Your task to perform on an android device: toggle javascript in the chrome app Image 0: 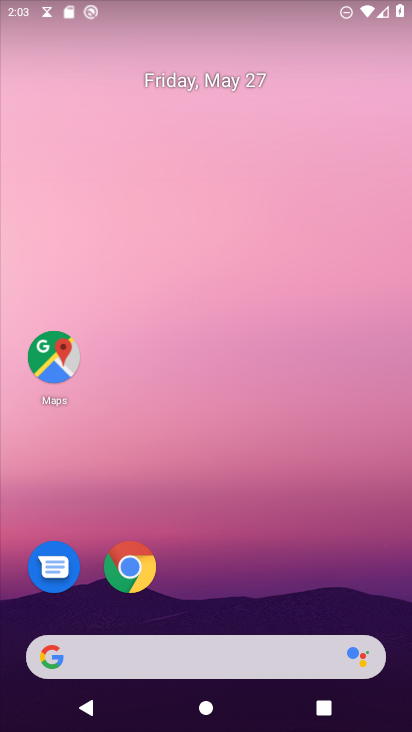
Step 0: drag from (227, 613) to (201, 264)
Your task to perform on an android device: toggle javascript in the chrome app Image 1: 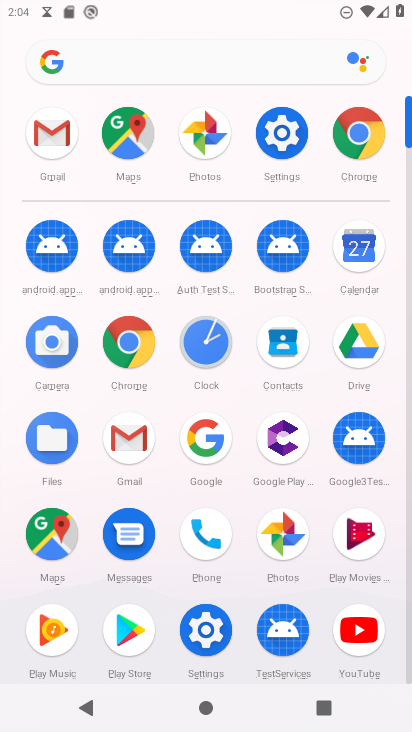
Step 1: click (372, 125)
Your task to perform on an android device: toggle javascript in the chrome app Image 2: 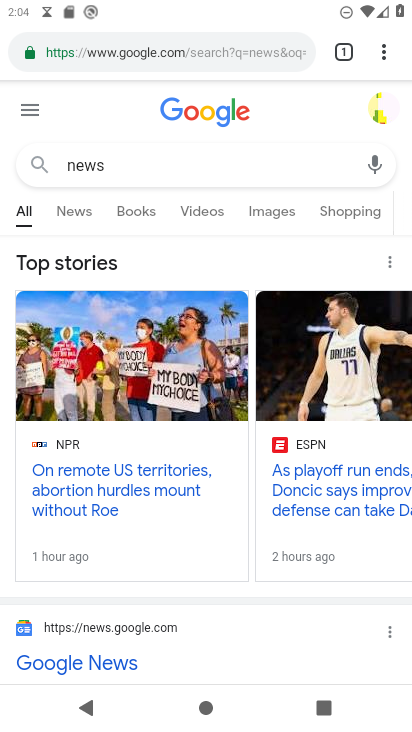
Step 2: click (377, 57)
Your task to perform on an android device: toggle javascript in the chrome app Image 3: 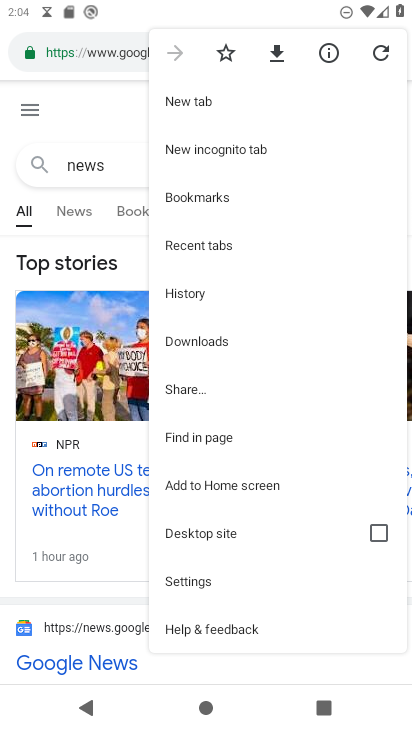
Step 3: click (182, 582)
Your task to perform on an android device: toggle javascript in the chrome app Image 4: 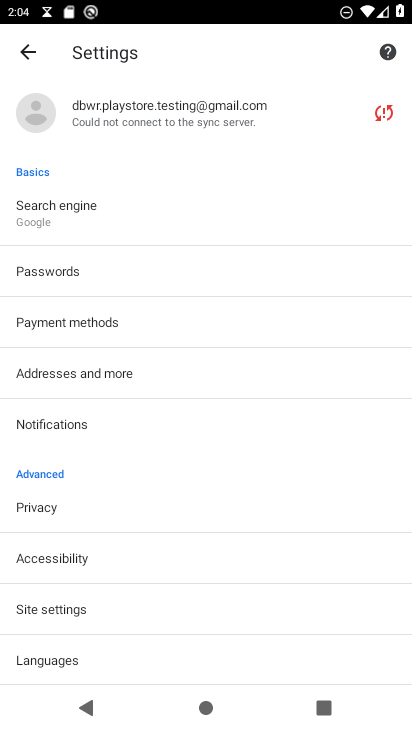
Step 4: drag from (146, 660) to (128, 443)
Your task to perform on an android device: toggle javascript in the chrome app Image 5: 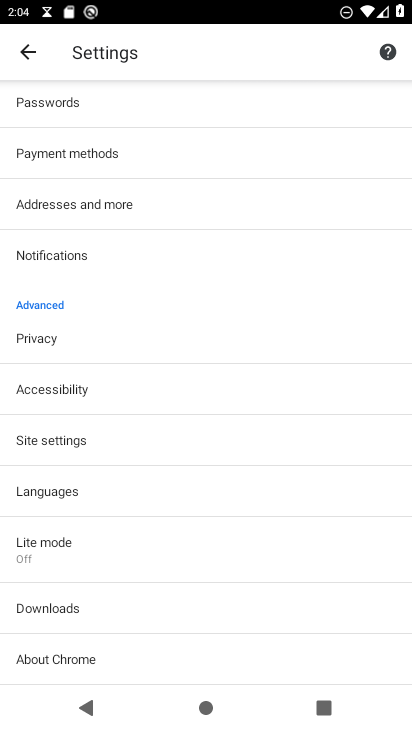
Step 5: click (121, 439)
Your task to perform on an android device: toggle javascript in the chrome app Image 6: 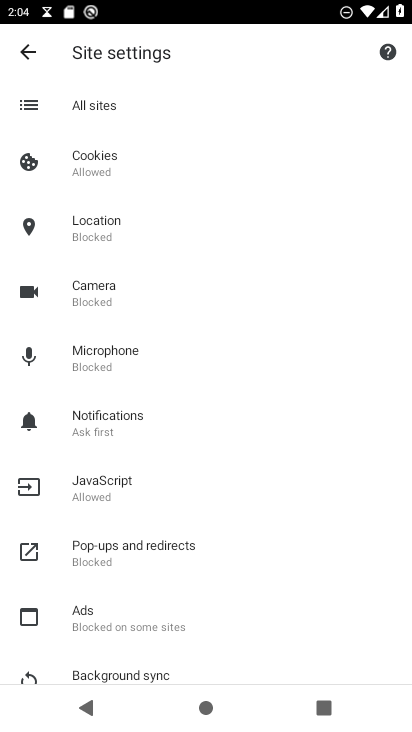
Step 6: click (154, 500)
Your task to perform on an android device: toggle javascript in the chrome app Image 7: 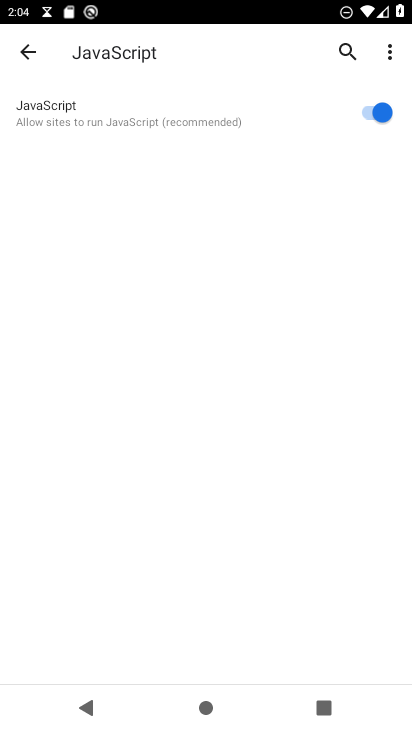
Step 7: click (364, 103)
Your task to perform on an android device: toggle javascript in the chrome app Image 8: 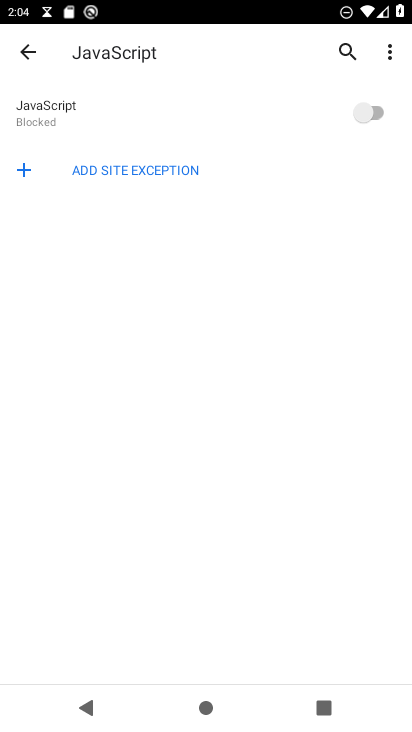
Step 8: task complete